Your task to perform on an android device: toggle notifications settings in the gmail app Image 0: 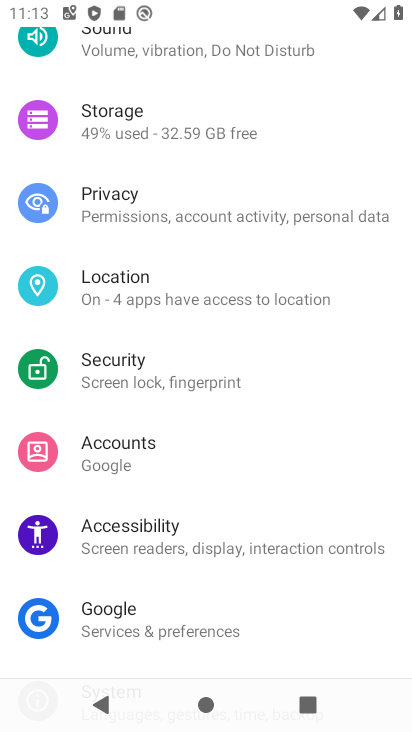
Step 0: press home button
Your task to perform on an android device: toggle notifications settings in the gmail app Image 1: 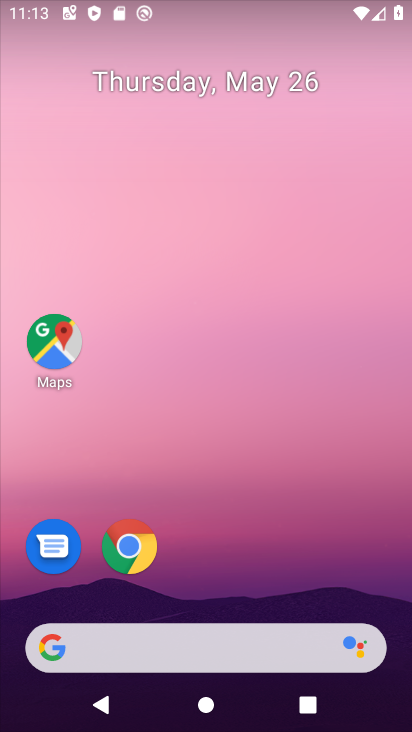
Step 1: drag from (252, 581) to (280, 101)
Your task to perform on an android device: toggle notifications settings in the gmail app Image 2: 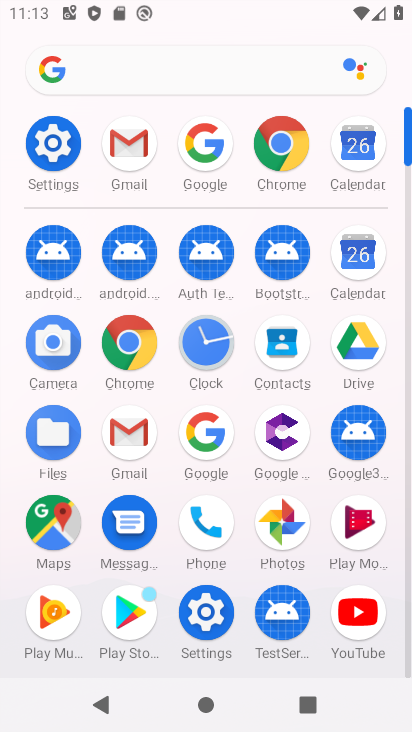
Step 2: click (129, 143)
Your task to perform on an android device: toggle notifications settings in the gmail app Image 3: 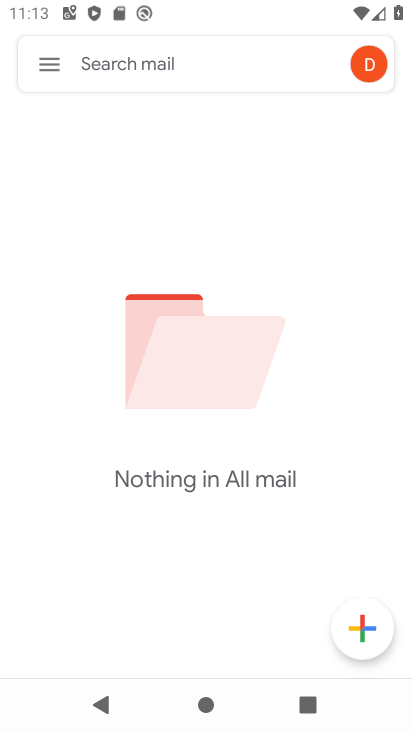
Step 3: click (54, 61)
Your task to perform on an android device: toggle notifications settings in the gmail app Image 4: 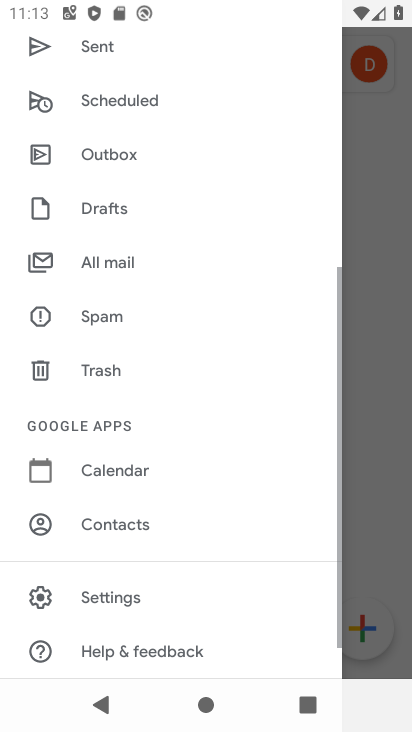
Step 4: click (139, 596)
Your task to perform on an android device: toggle notifications settings in the gmail app Image 5: 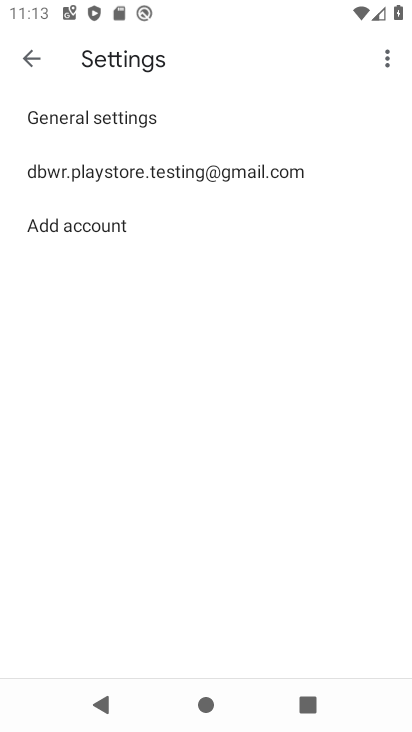
Step 5: click (101, 169)
Your task to perform on an android device: toggle notifications settings in the gmail app Image 6: 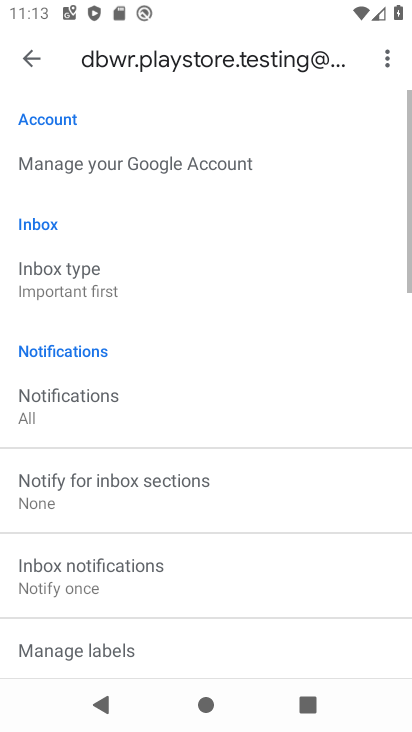
Step 6: click (71, 410)
Your task to perform on an android device: toggle notifications settings in the gmail app Image 7: 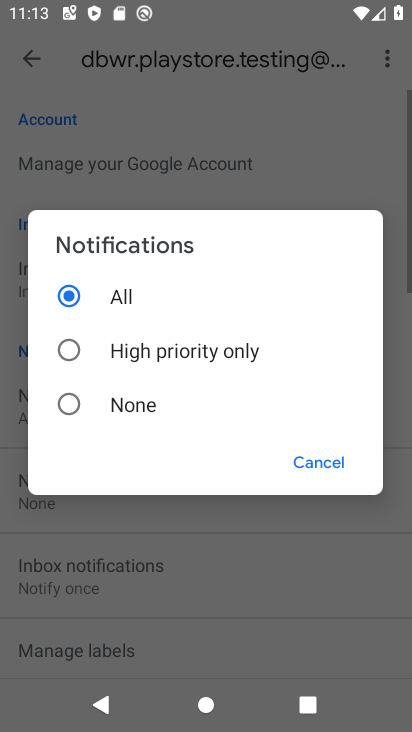
Step 7: click (71, 410)
Your task to perform on an android device: toggle notifications settings in the gmail app Image 8: 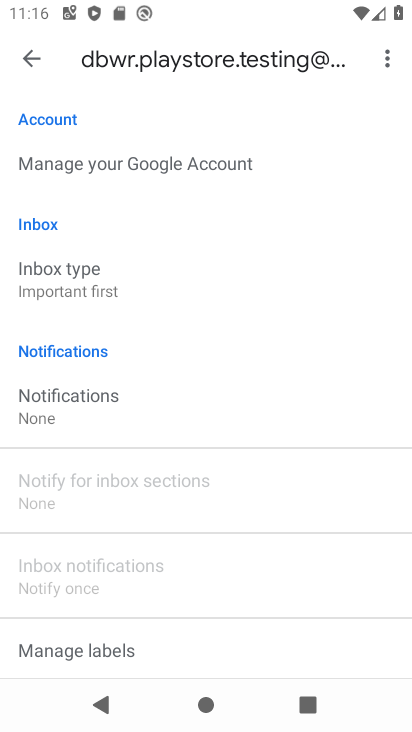
Step 8: task complete